Your task to perform on an android device: Do I have any events today? Image 0: 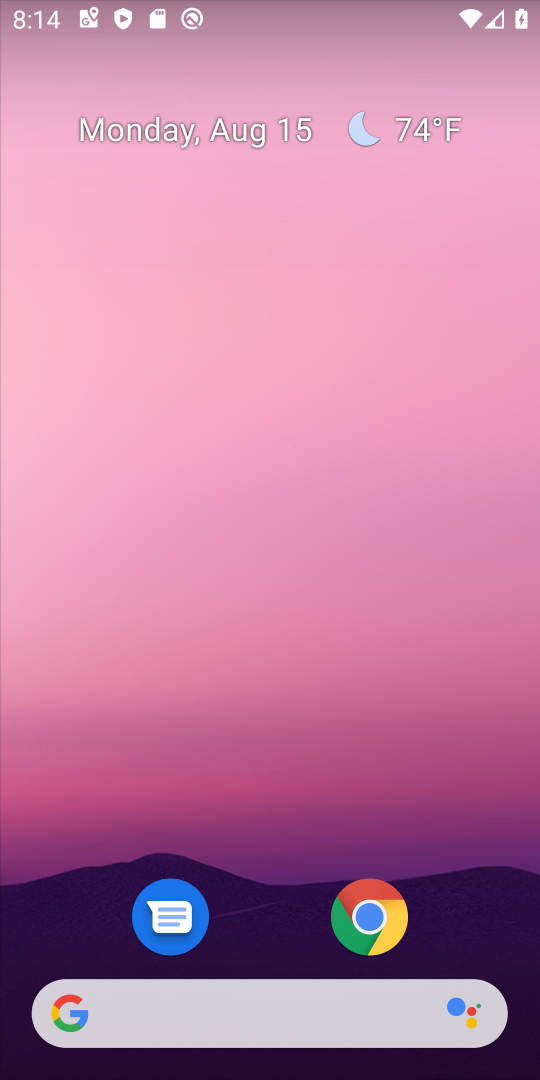
Step 0: drag from (265, 849) to (309, 3)
Your task to perform on an android device: Do I have any events today? Image 1: 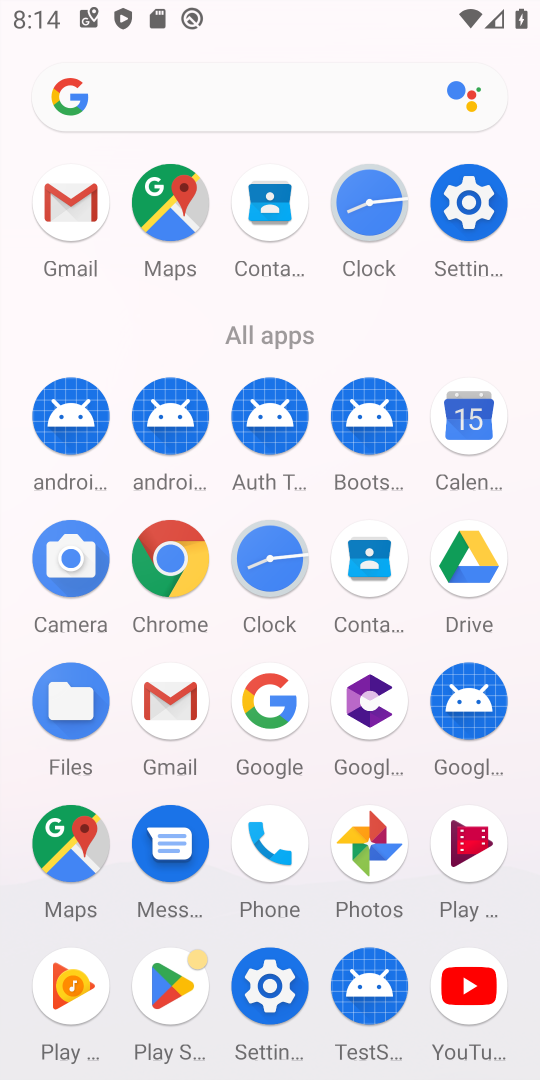
Step 1: click (480, 422)
Your task to perform on an android device: Do I have any events today? Image 2: 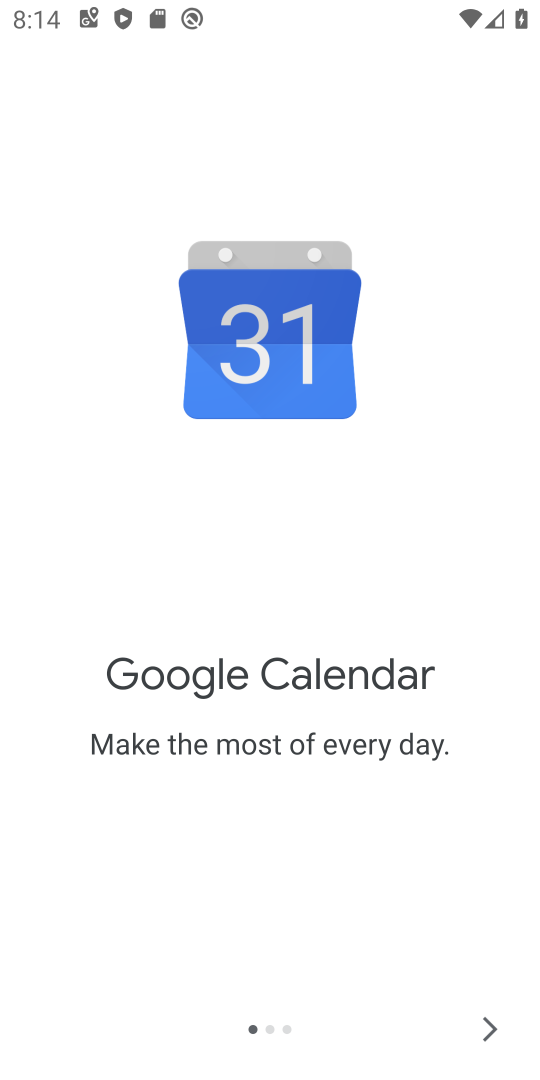
Step 2: click (489, 1027)
Your task to perform on an android device: Do I have any events today? Image 3: 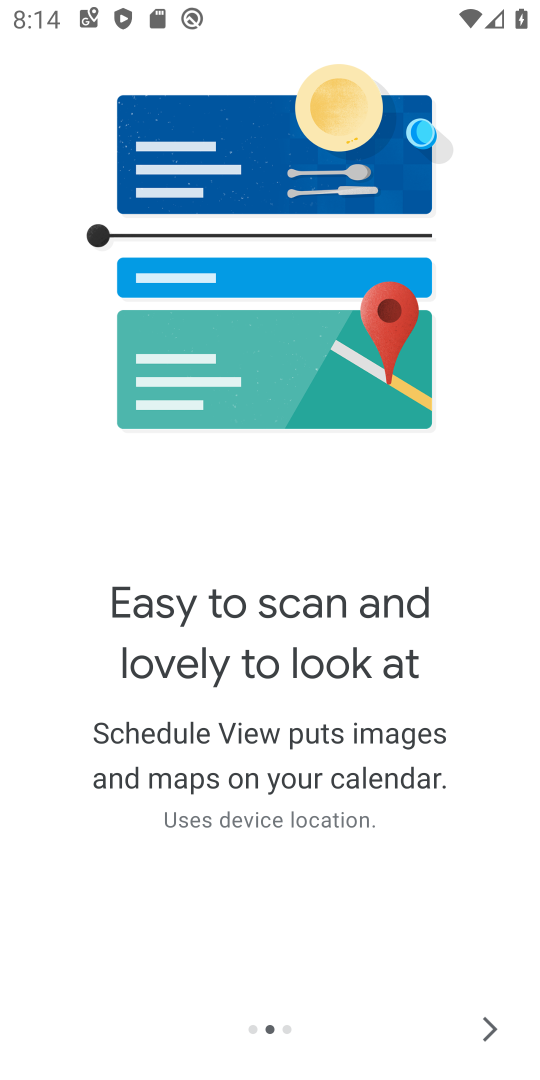
Step 3: click (489, 1020)
Your task to perform on an android device: Do I have any events today? Image 4: 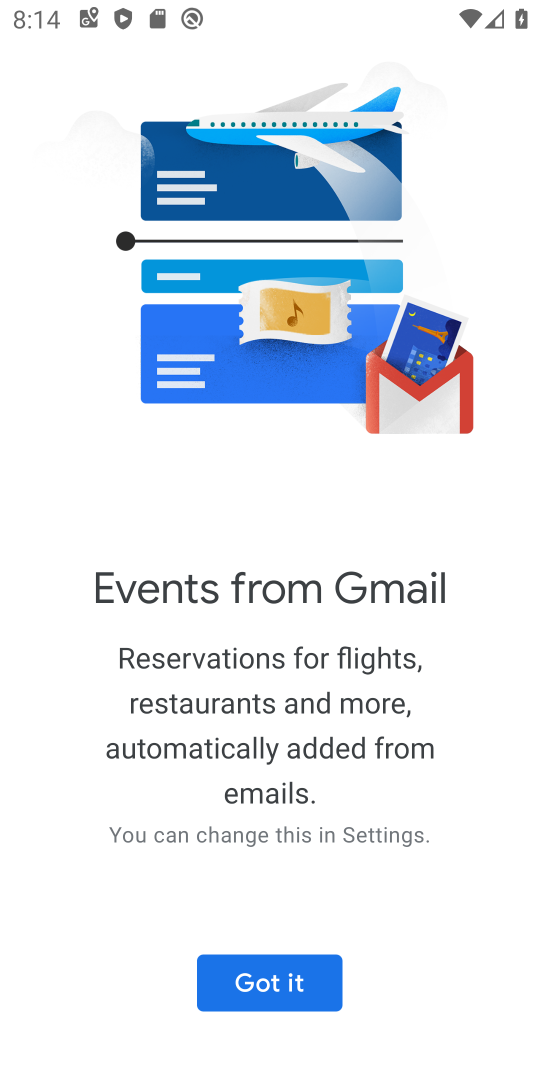
Step 4: click (322, 993)
Your task to perform on an android device: Do I have any events today? Image 5: 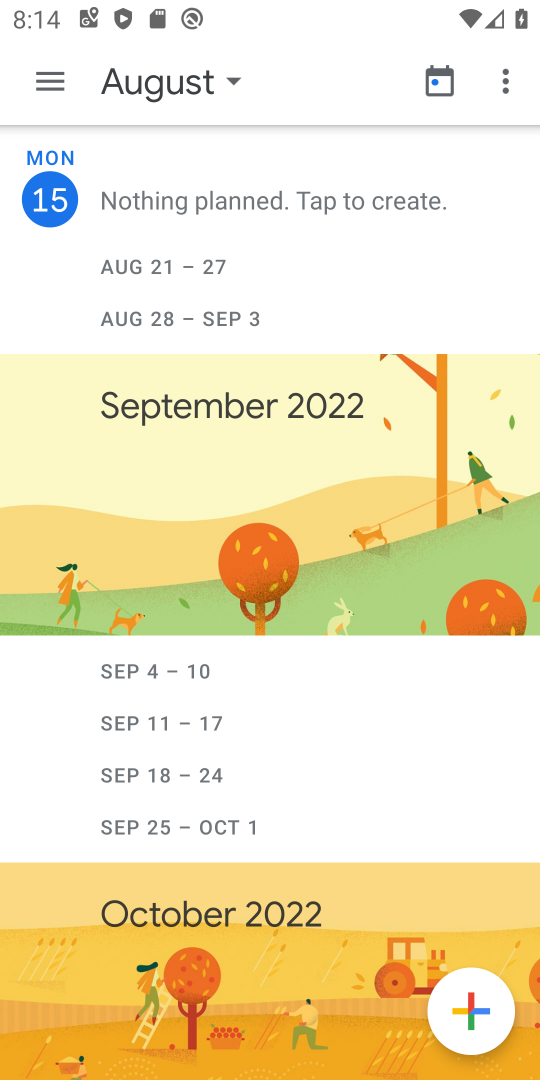
Step 5: task complete